Your task to perform on an android device: Open Yahoo.com Image 0: 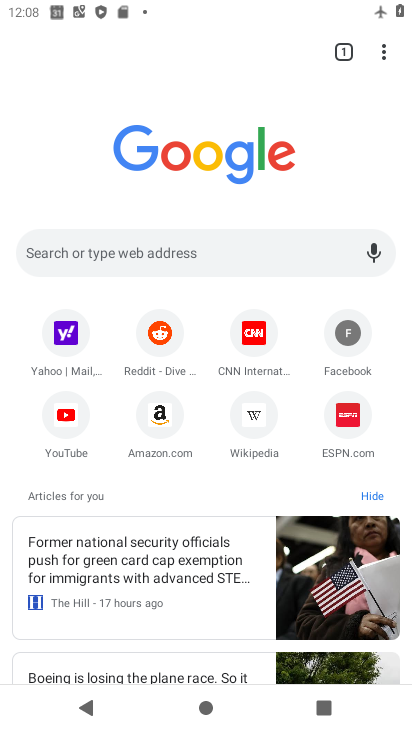
Step 0: press home button
Your task to perform on an android device: Open Yahoo.com Image 1: 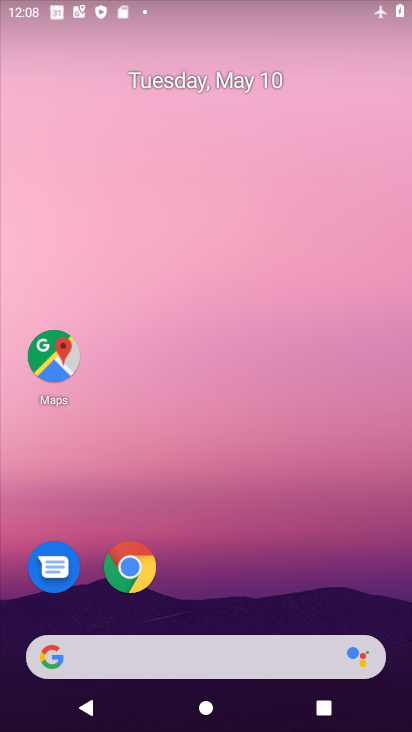
Step 1: drag from (357, 596) to (262, 40)
Your task to perform on an android device: Open Yahoo.com Image 2: 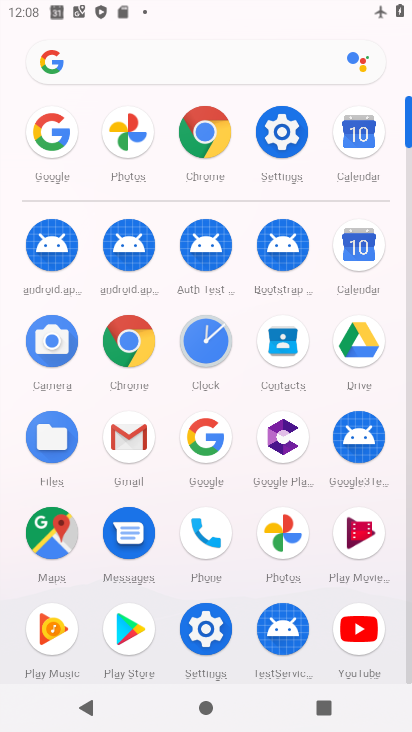
Step 2: click (195, 153)
Your task to perform on an android device: Open Yahoo.com Image 3: 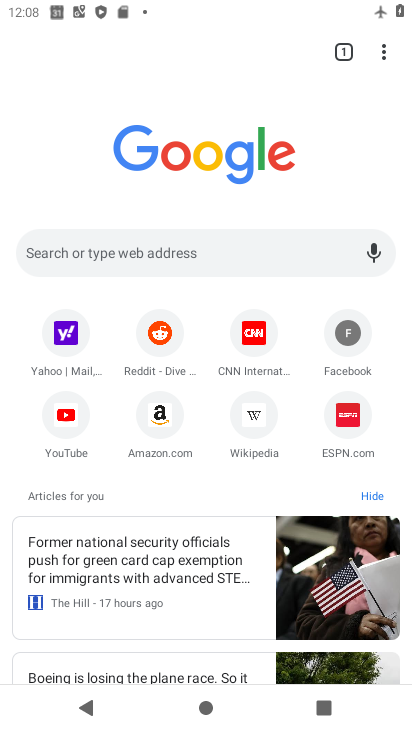
Step 3: click (56, 333)
Your task to perform on an android device: Open Yahoo.com Image 4: 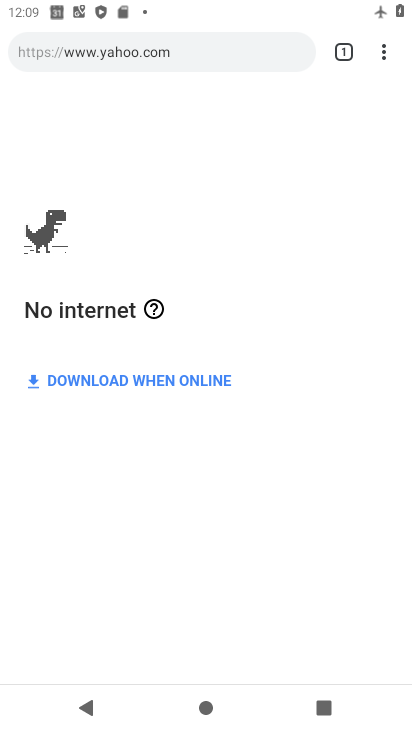
Step 4: task complete